Your task to perform on an android device: search for starred emails in the gmail app Image 0: 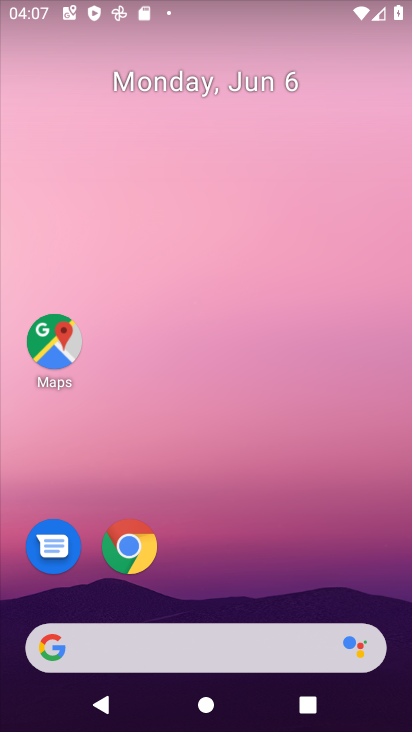
Step 0: drag from (231, 572) to (275, 141)
Your task to perform on an android device: search for starred emails in the gmail app Image 1: 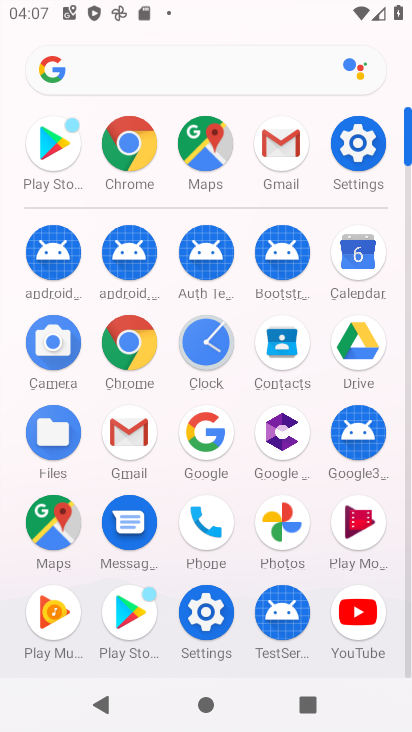
Step 1: click (271, 146)
Your task to perform on an android device: search for starred emails in the gmail app Image 2: 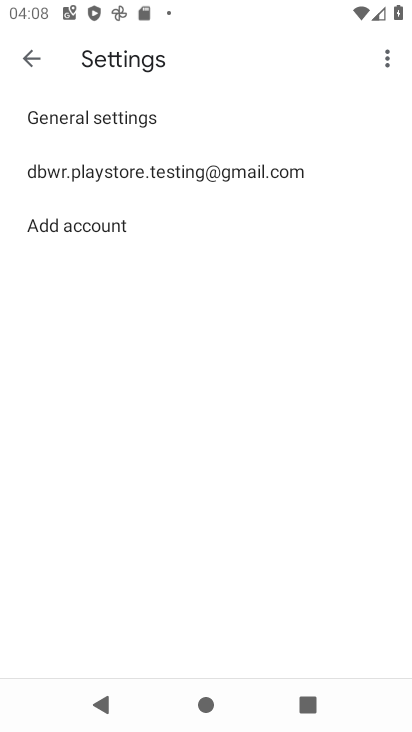
Step 2: click (31, 75)
Your task to perform on an android device: search for starred emails in the gmail app Image 3: 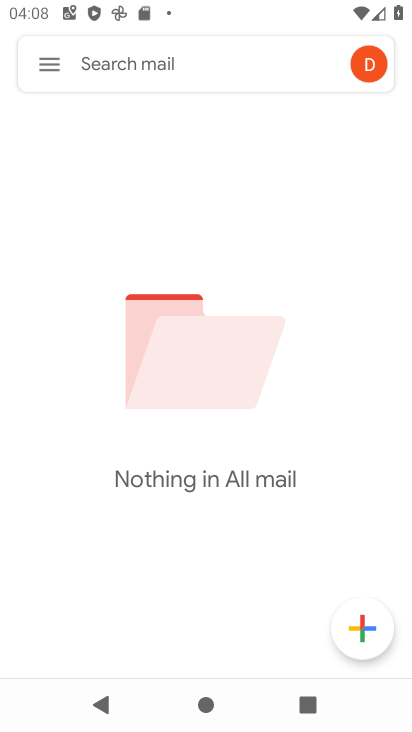
Step 3: click (56, 70)
Your task to perform on an android device: search for starred emails in the gmail app Image 4: 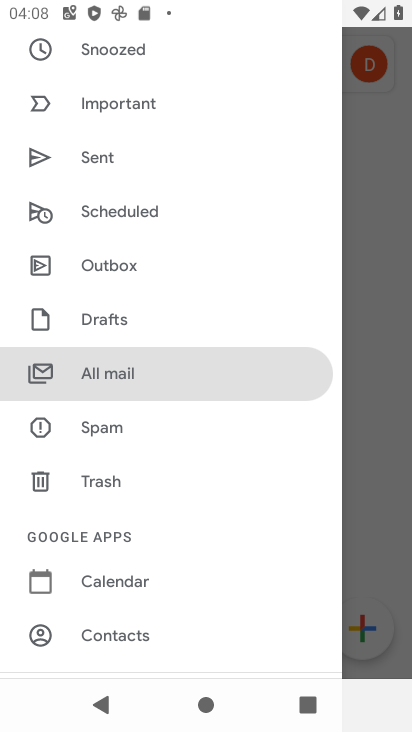
Step 4: drag from (148, 202) to (153, 324)
Your task to perform on an android device: search for starred emails in the gmail app Image 5: 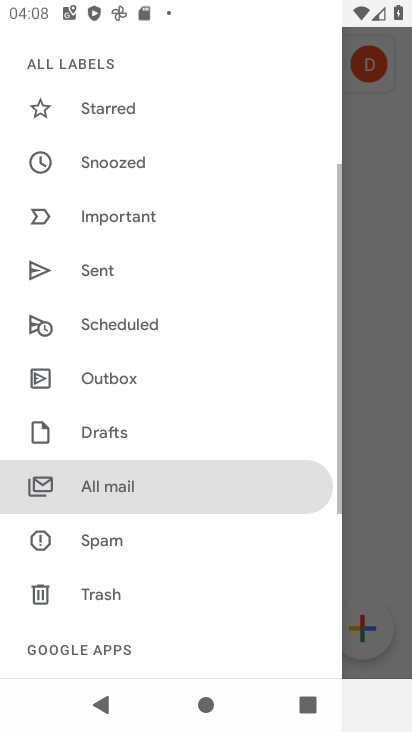
Step 5: click (153, 324)
Your task to perform on an android device: search for starred emails in the gmail app Image 6: 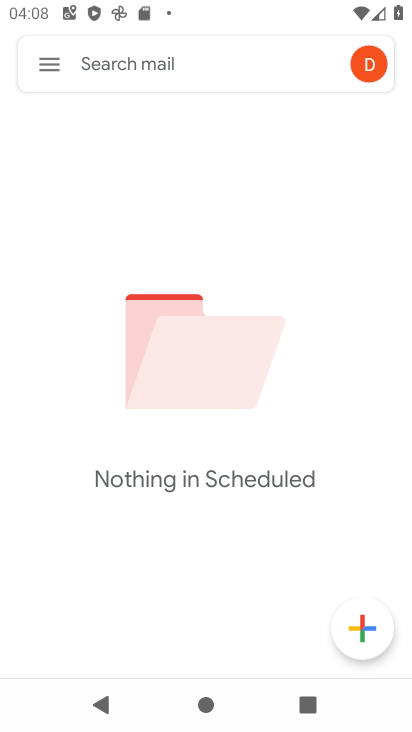
Step 6: task complete